Your task to perform on an android device: see sites visited before in the chrome app Image 0: 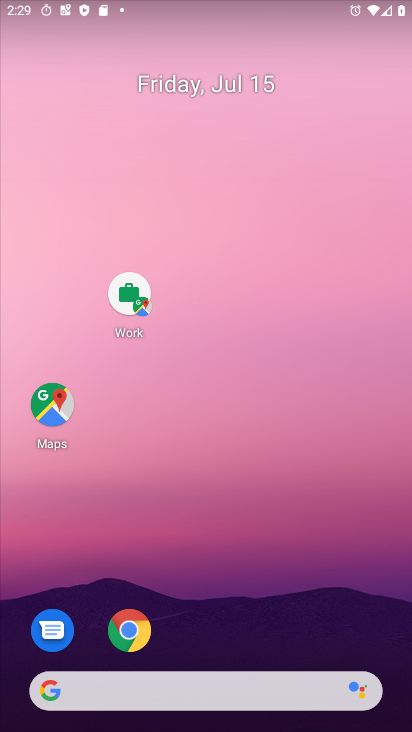
Step 0: click (121, 618)
Your task to perform on an android device: see sites visited before in the chrome app Image 1: 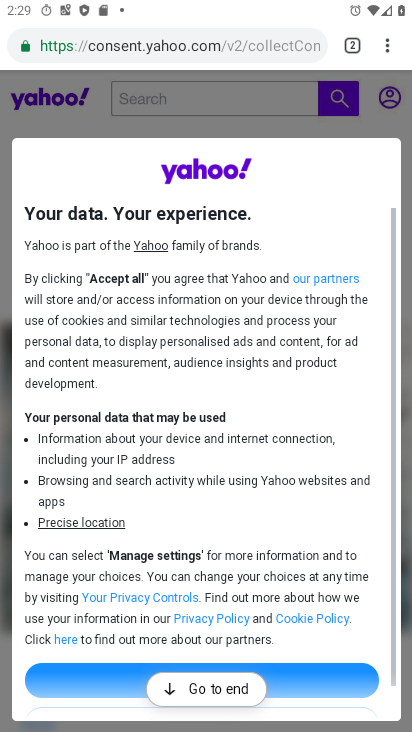
Step 1: click (387, 54)
Your task to perform on an android device: see sites visited before in the chrome app Image 2: 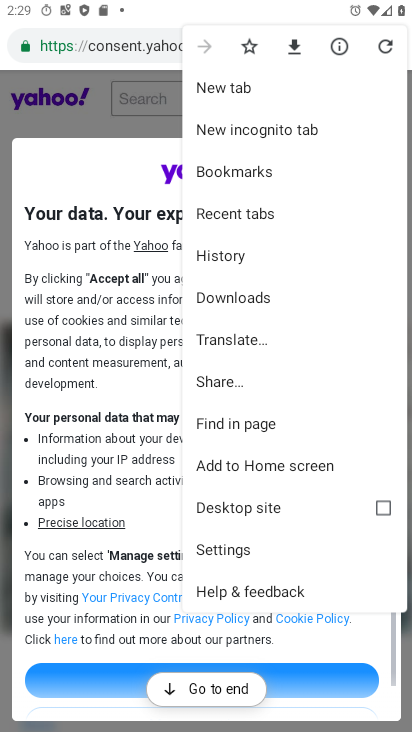
Step 2: click (253, 215)
Your task to perform on an android device: see sites visited before in the chrome app Image 3: 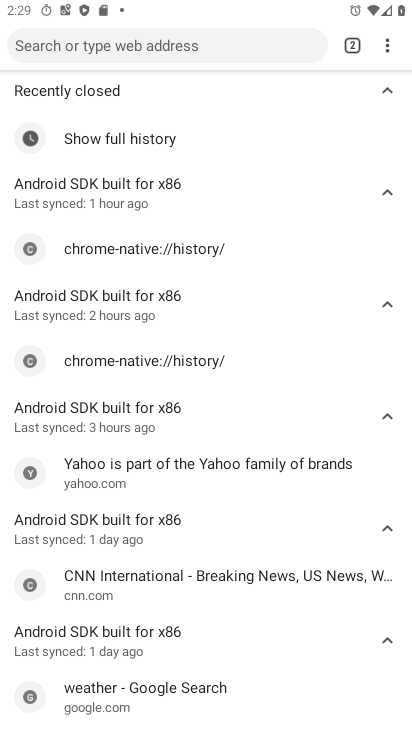
Step 3: task complete